Your task to perform on an android device: Open location settings Image 0: 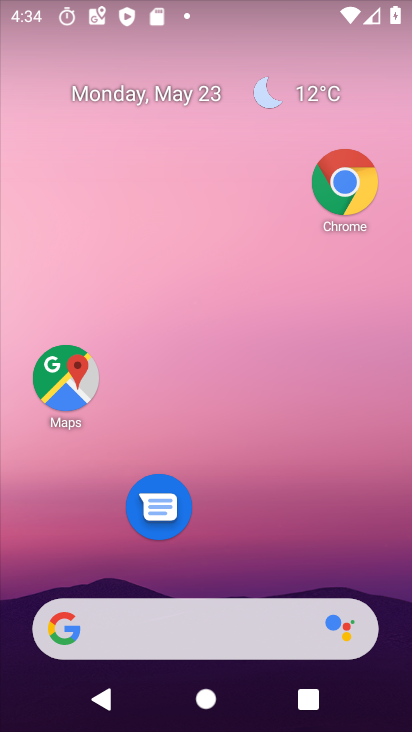
Step 0: click (75, 378)
Your task to perform on an android device: Open location settings Image 1: 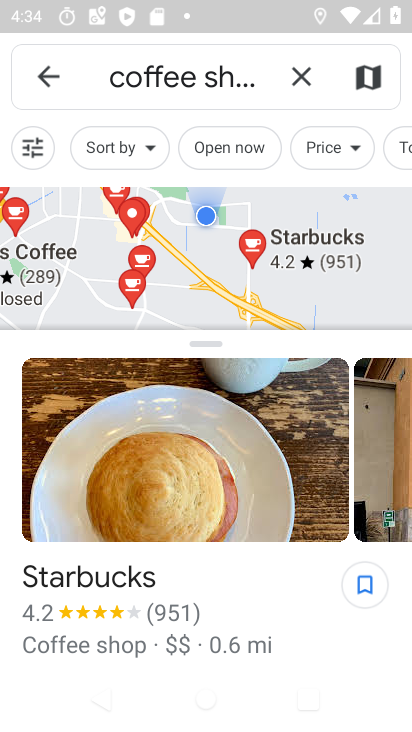
Step 1: press home button
Your task to perform on an android device: Open location settings Image 2: 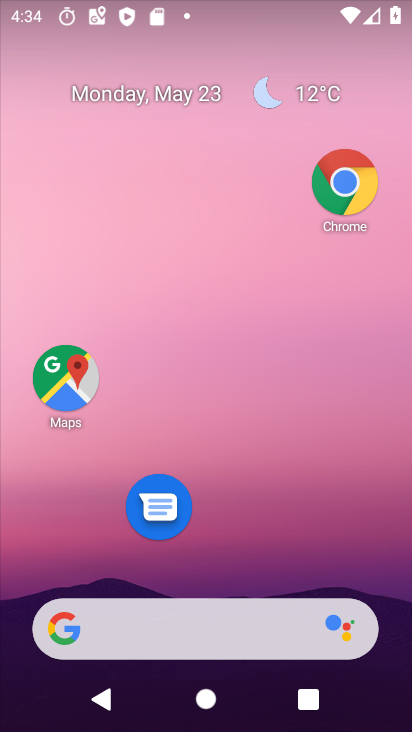
Step 2: drag from (260, 174) to (223, 44)
Your task to perform on an android device: Open location settings Image 3: 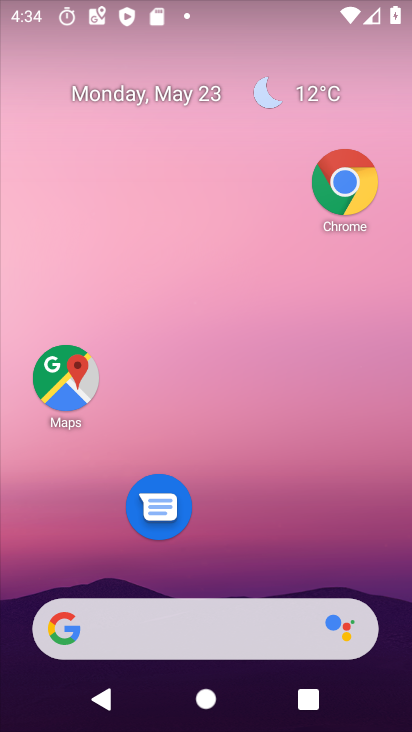
Step 3: drag from (217, 563) to (166, 139)
Your task to perform on an android device: Open location settings Image 4: 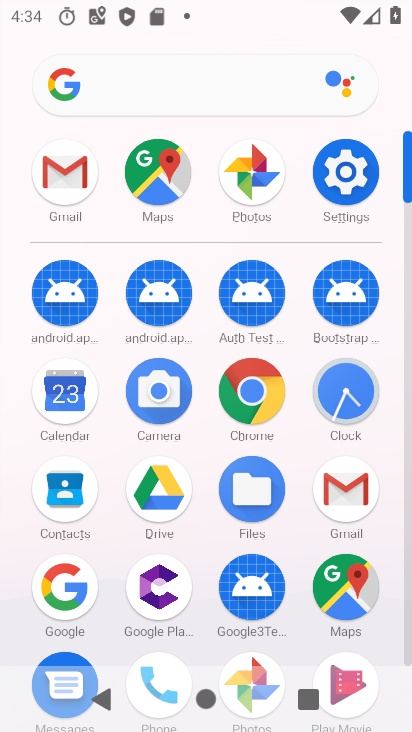
Step 4: click (358, 166)
Your task to perform on an android device: Open location settings Image 5: 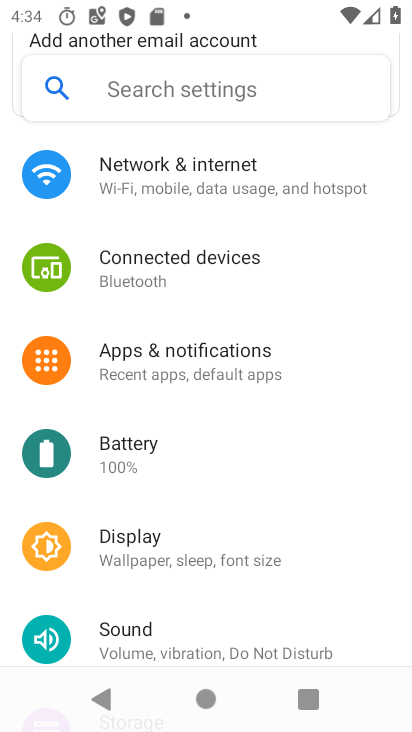
Step 5: drag from (128, 583) to (189, 298)
Your task to perform on an android device: Open location settings Image 6: 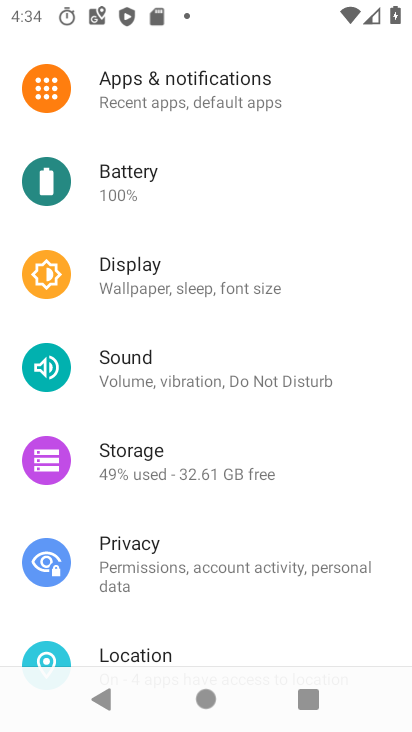
Step 6: click (122, 651)
Your task to perform on an android device: Open location settings Image 7: 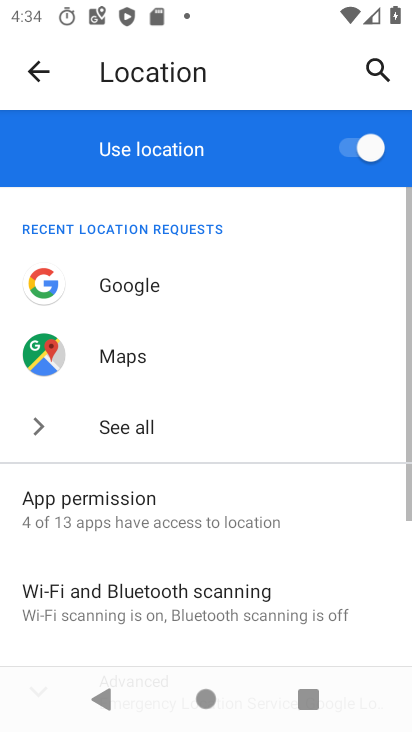
Step 7: task complete